Your task to perform on an android device: Go to internet settings Image 0: 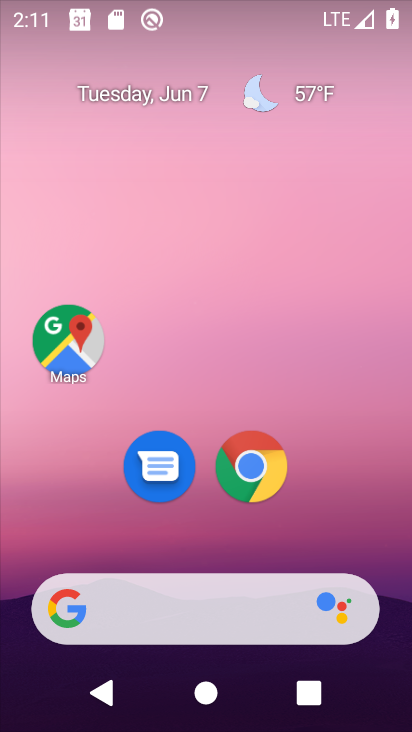
Step 0: drag from (198, 544) to (294, 16)
Your task to perform on an android device: Go to internet settings Image 1: 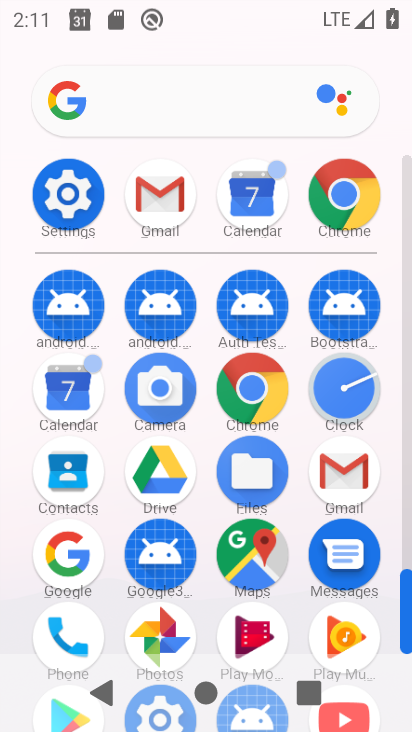
Step 1: click (89, 189)
Your task to perform on an android device: Go to internet settings Image 2: 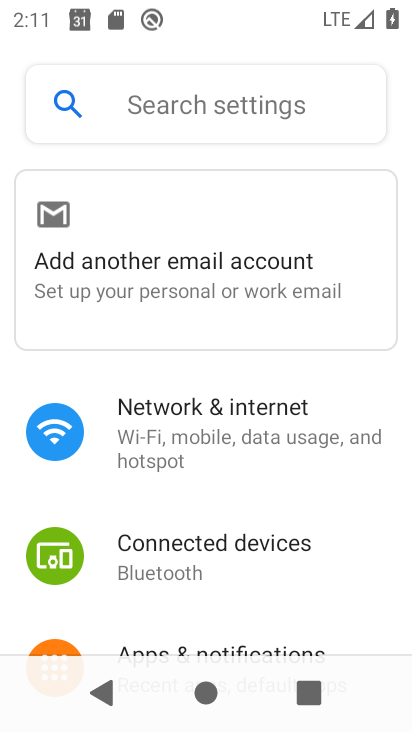
Step 2: click (259, 416)
Your task to perform on an android device: Go to internet settings Image 3: 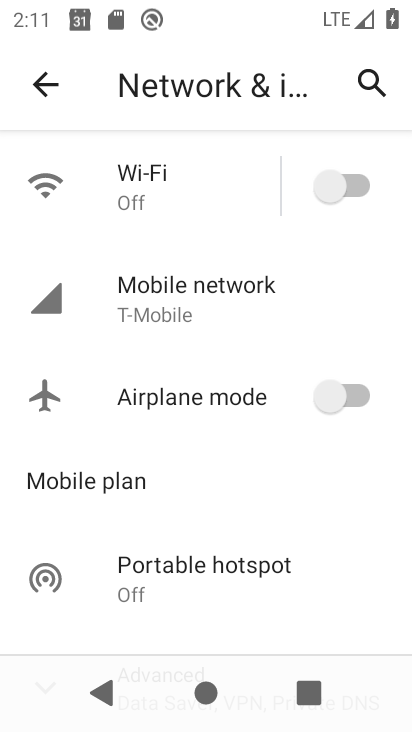
Step 3: task complete